Your task to perform on an android device: toggle notification dots Image 0: 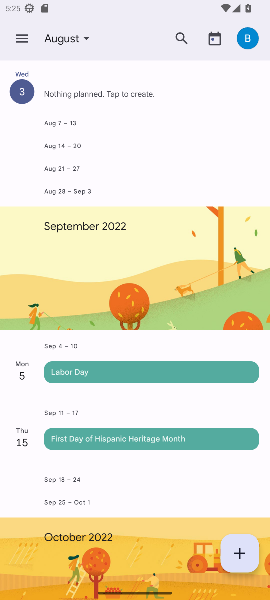
Step 0: press home button
Your task to perform on an android device: toggle notification dots Image 1: 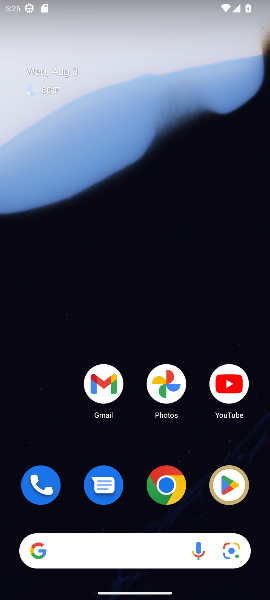
Step 1: drag from (200, 445) to (154, 69)
Your task to perform on an android device: toggle notification dots Image 2: 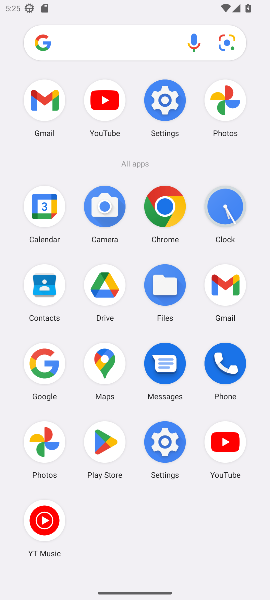
Step 2: click (165, 457)
Your task to perform on an android device: toggle notification dots Image 3: 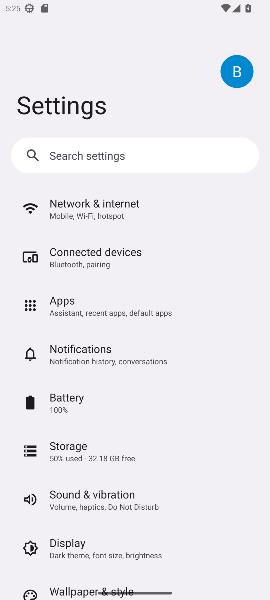
Step 3: click (120, 346)
Your task to perform on an android device: toggle notification dots Image 4: 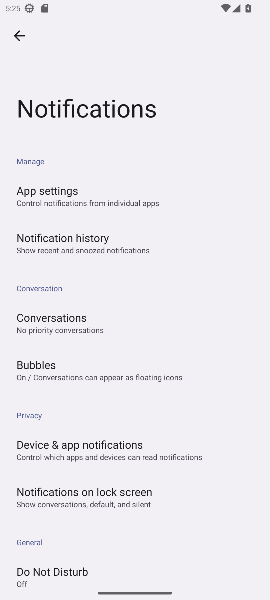
Step 4: drag from (128, 511) to (112, 230)
Your task to perform on an android device: toggle notification dots Image 5: 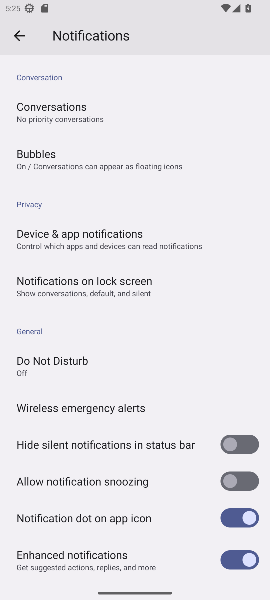
Step 5: drag from (179, 517) to (166, 195)
Your task to perform on an android device: toggle notification dots Image 6: 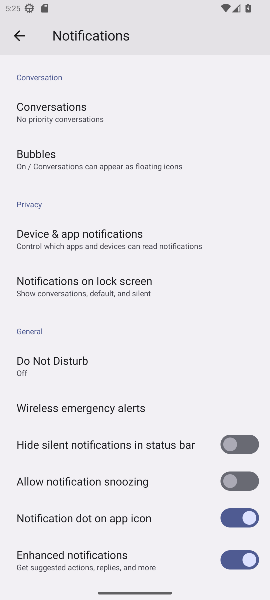
Step 6: click (245, 522)
Your task to perform on an android device: toggle notification dots Image 7: 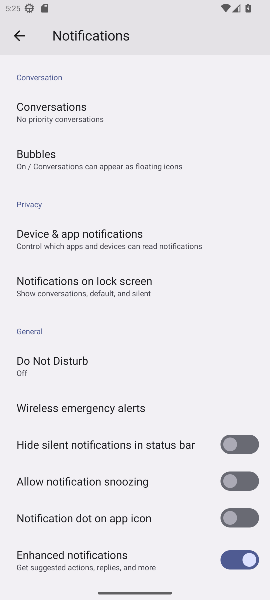
Step 7: task complete